Your task to perform on an android device: Open Maps and search for coffee Image 0: 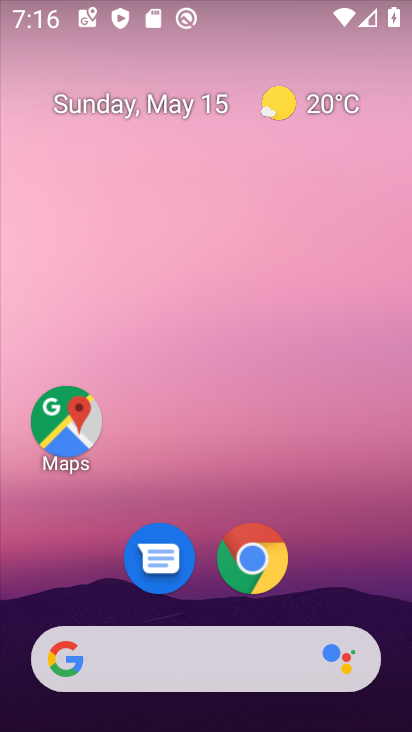
Step 0: click (56, 435)
Your task to perform on an android device: Open Maps and search for coffee Image 1: 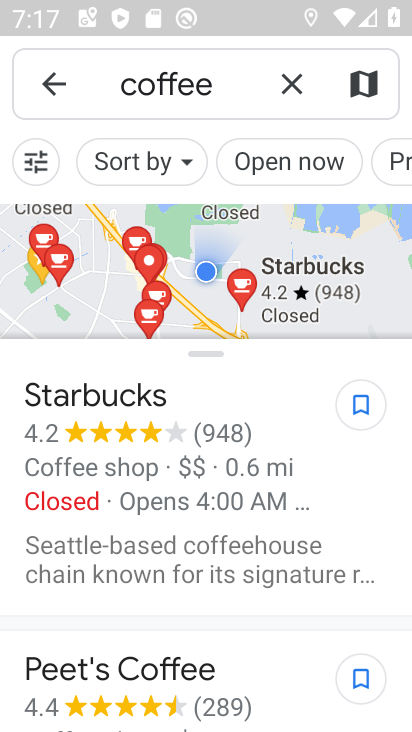
Step 1: task complete